Your task to perform on an android device: stop showing notifications on the lock screen Image 0: 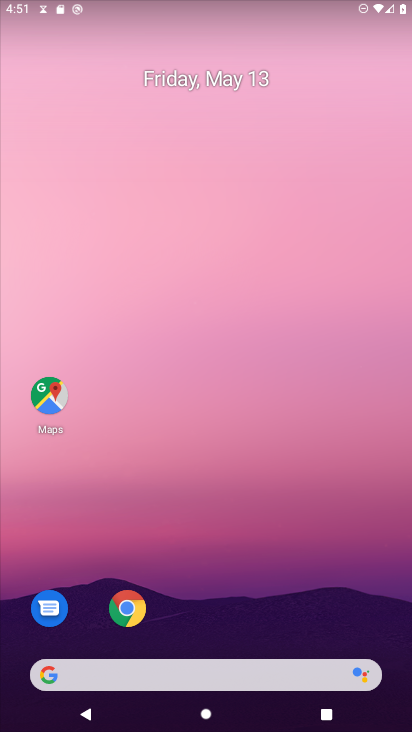
Step 0: drag from (233, 622) to (278, 3)
Your task to perform on an android device: stop showing notifications on the lock screen Image 1: 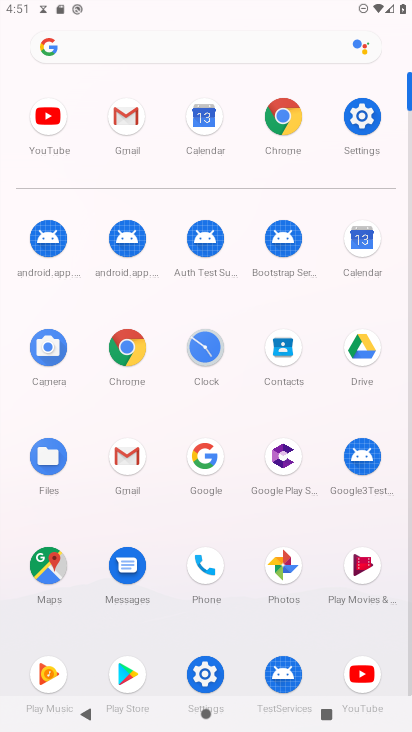
Step 1: click (198, 676)
Your task to perform on an android device: stop showing notifications on the lock screen Image 2: 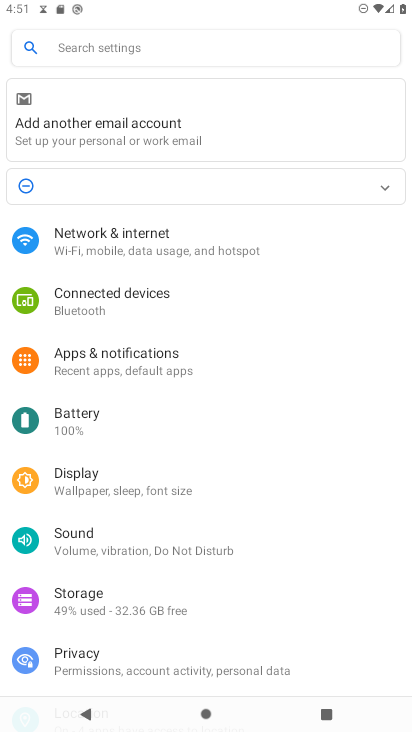
Step 2: drag from (233, 678) to (235, 596)
Your task to perform on an android device: stop showing notifications on the lock screen Image 3: 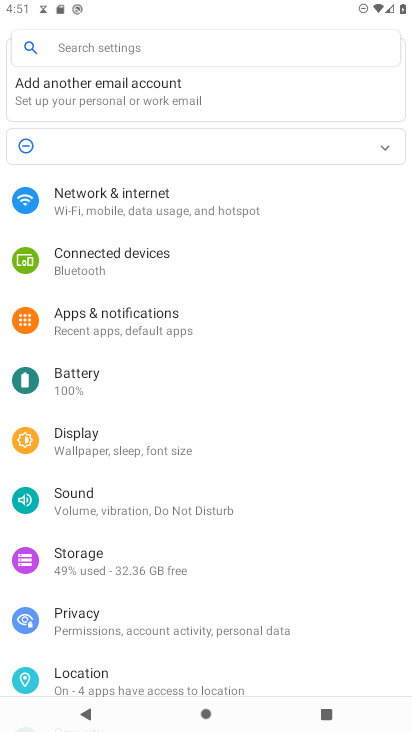
Step 3: click (167, 324)
Your task to perform on an android device: stop showing notifications on the lock screen Image 4: 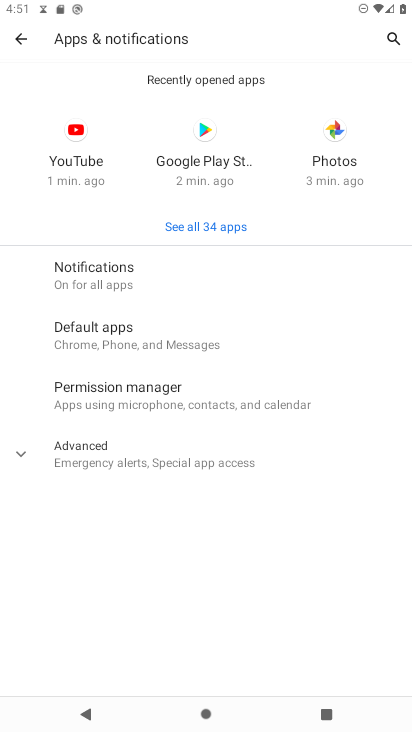
Step 4: click (139, 277)
Your task to perform on an android device: stop showing notifications on the lock screen Image 5: 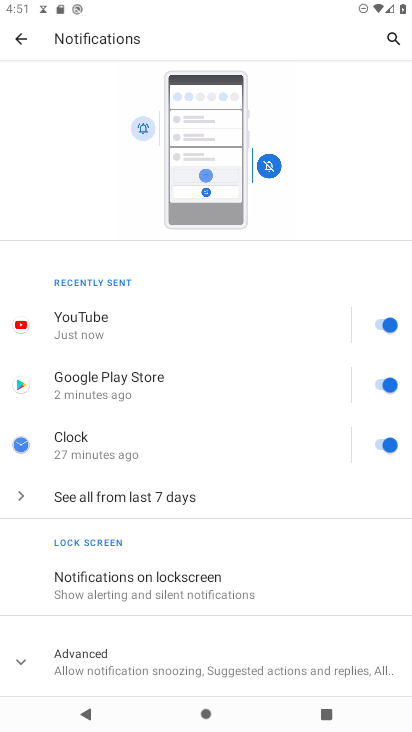
Step 5: click (211, 590)
Your task to perform on an android device: stop showing notifications on the lock screen Image 6: 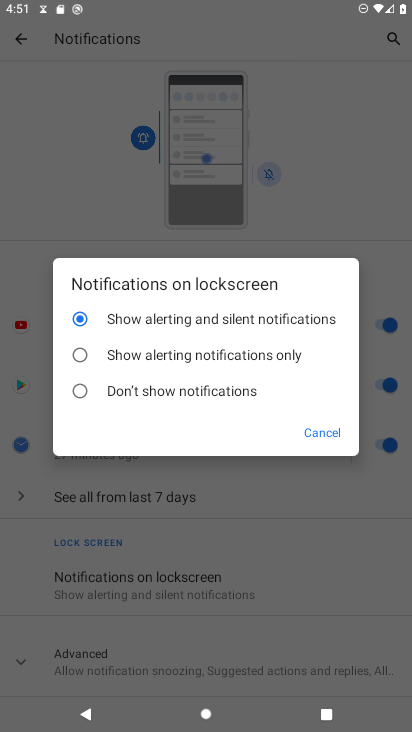
Step 6: click (82, 388)
Your task to perform on an android device: stop showing notifications on the lock screen Image 7: 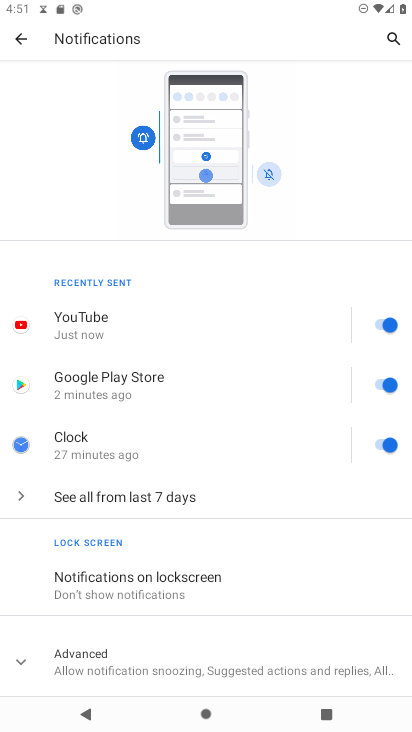
Step 7: task complete